Your task to perform on an android device: toggle improve location accuracy Image 0: 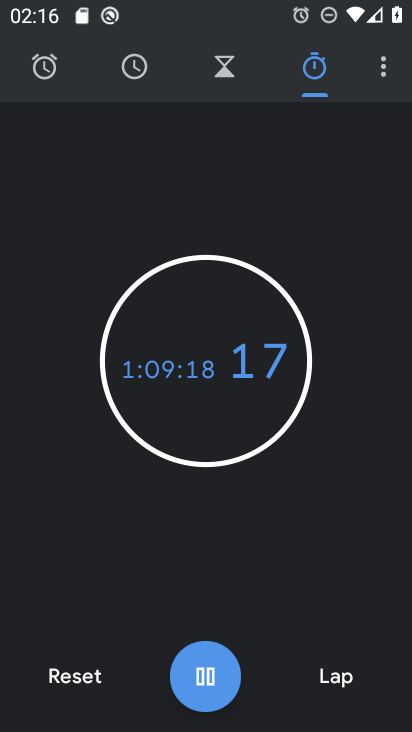
Step 0: press home button
Your task to perform on an android device: toggle improve location accuracy Image 1: 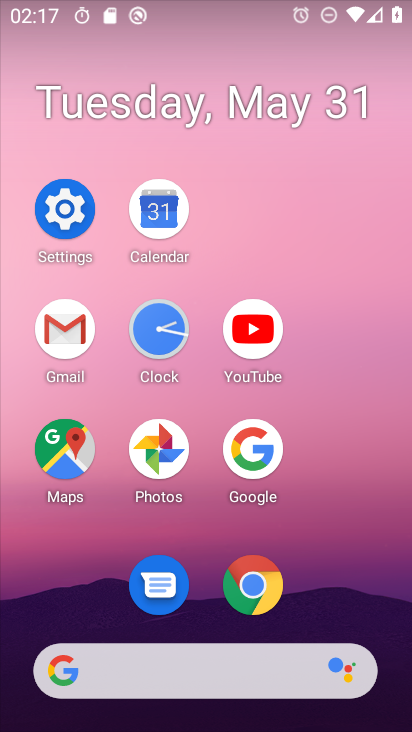
Step 1: click (41, 209)
Your task to perform on an android device: toggle improve location accuracy Image 2: 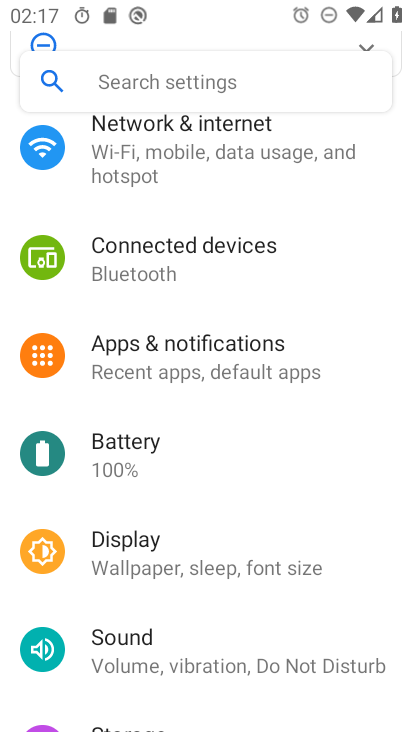
Step 2: drag from (239, 527) to (263, 243)
Your task to perform on an android device: toggle improve location accuracy Image 3: 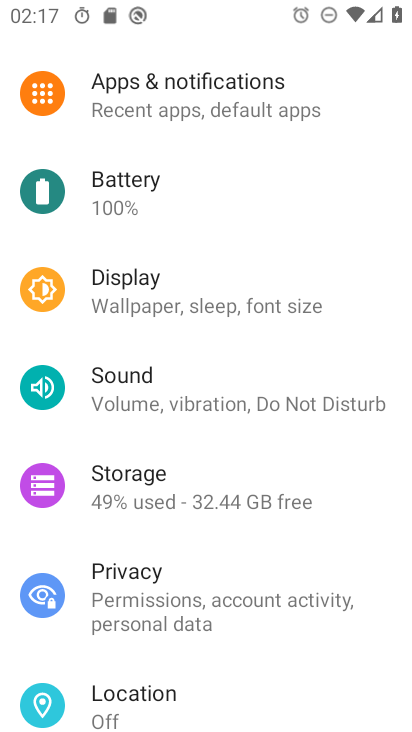
Step 3: click (174, 716)
Your task to perform on an android device: toggle improve location accuracy Image 4: 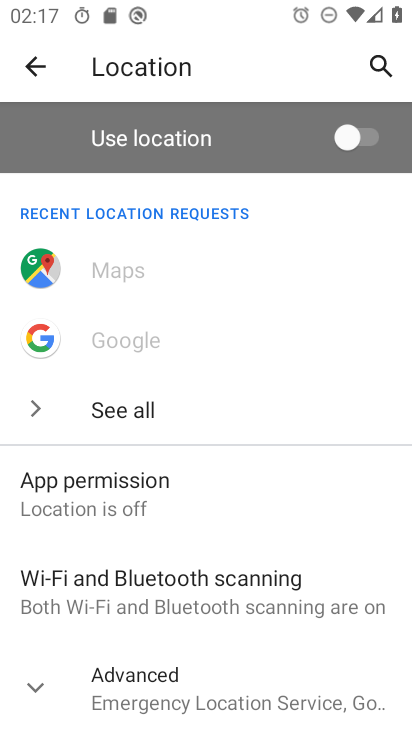
Step 4: click (220, 673)
Your task to perform on an android device: toggle improve location accuracy Image 5: 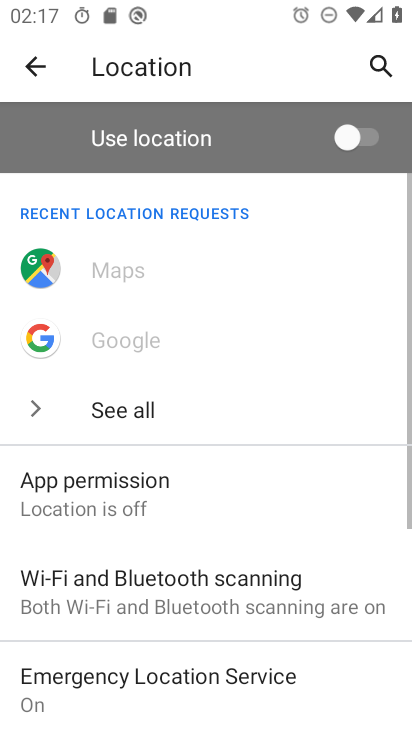
Step 5: drag from (226, 647) to (236, 242)
Your task to perform on an android device: toggle improve location accuracy Image 6: 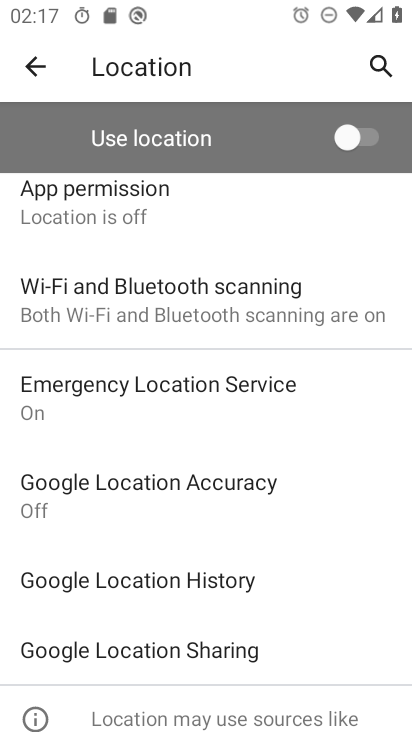
Step 6: click (239, 476)
Your task to perform on an android device: toggle improve location accuracy Image 7: 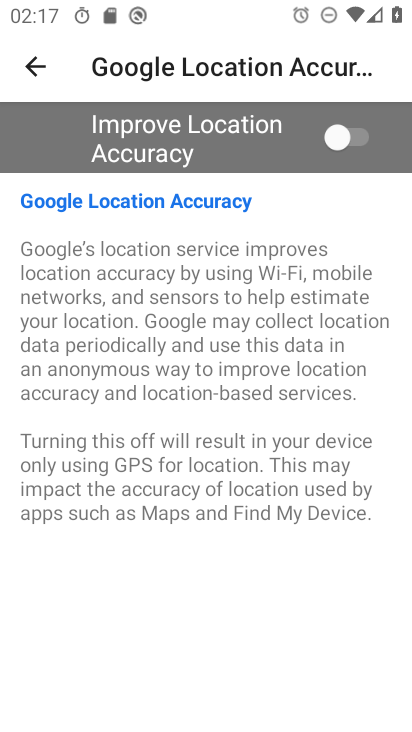
Step 7: click (342, 142)
Your task to perform on an android device: toggle improve location accuracy Image 8: 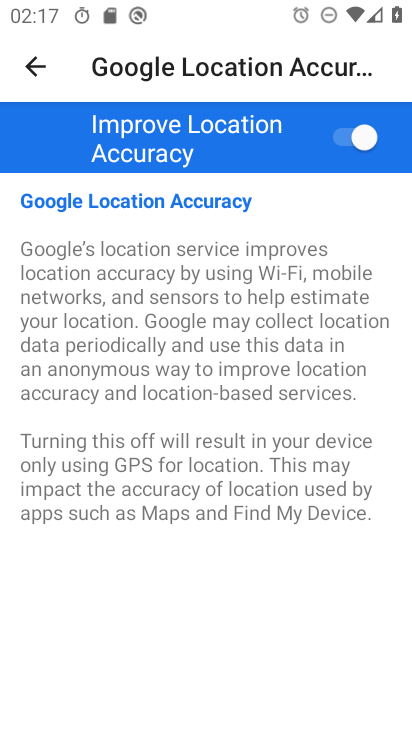
Step 8: task complete